Your task to perform on an android device: turn pop-ups on in chrome Image 0: 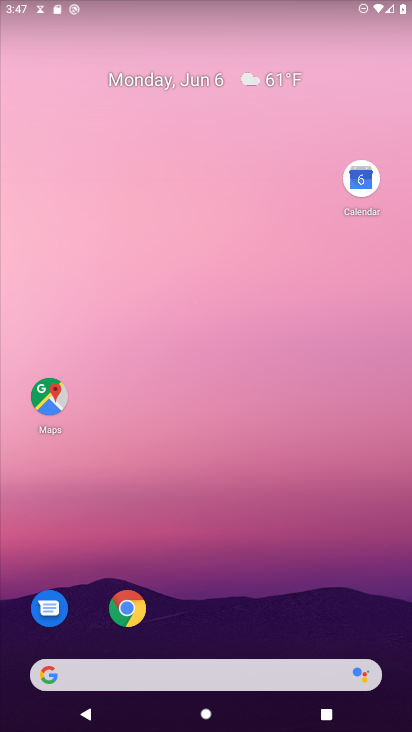
Step 0: click (143, 608)
Your task to perform on an android device: turn pop-ups on in chrome Image 1: 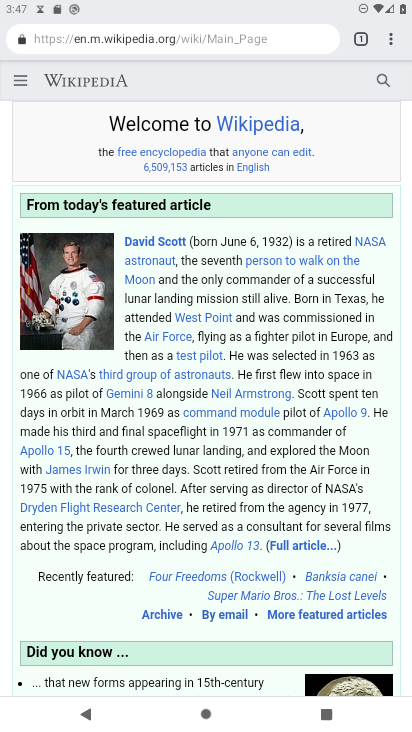
Step 1: click (391, 46)
Your task to perform on an android device: turn pop-ups on in chrome Image 2: 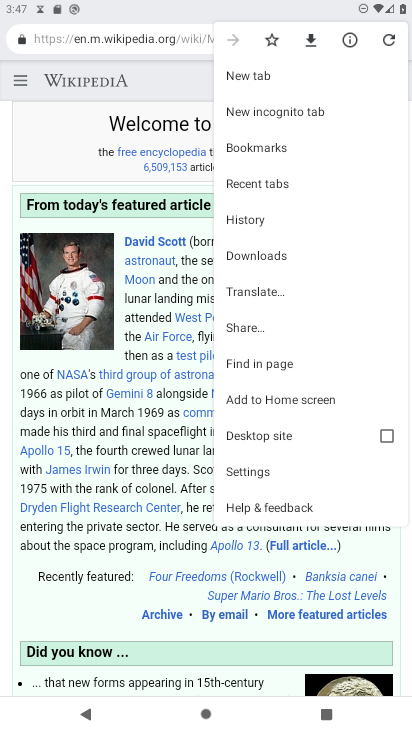
Step 2: click (267, 480)
Your task to perform on an android device: turn pop-ups on in chrome Image 3: 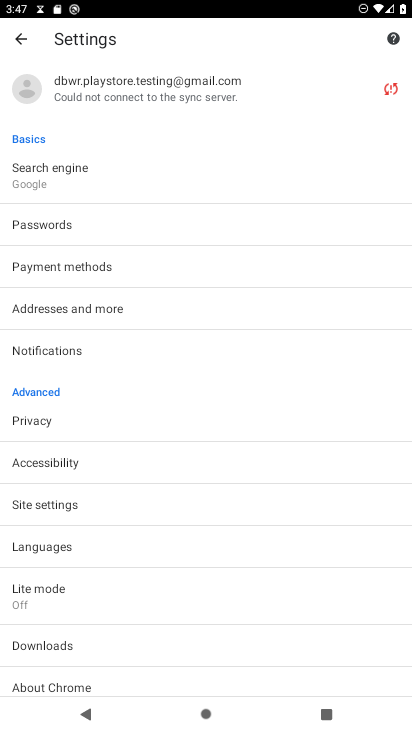
Step 3: click (46, 502)
Your task to perform on an android device: turn pop-ups on in chrome Image 4: 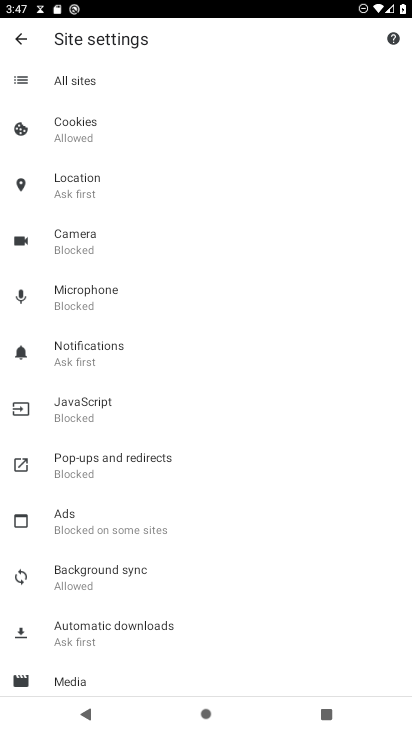
Step 4: click (82, 456)
Your task to perform on an android device: turn pop-ups on in chrome Image 5: 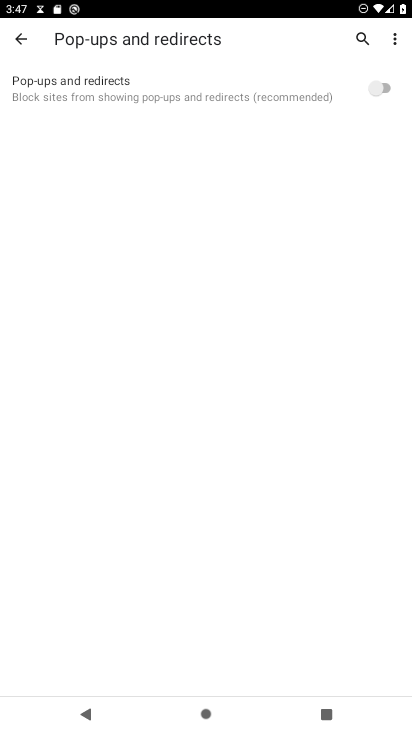
Step 5: click (375, 93)
Your task to perform on an android device: turn pop-ups on in chrome Image 6: 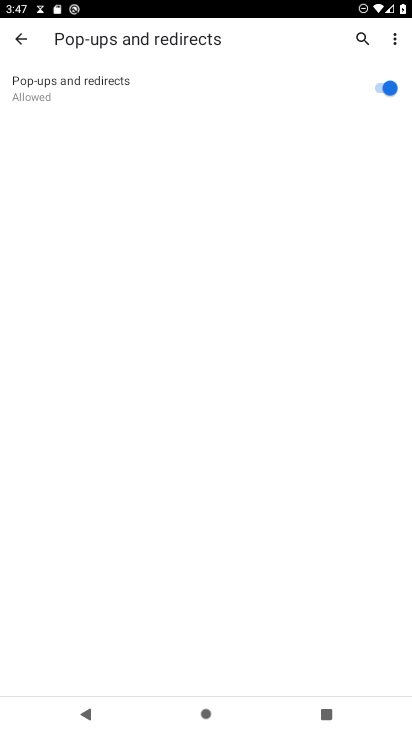
Step 6: task complete